Your task to perform on an android device: Open settings Image 0: 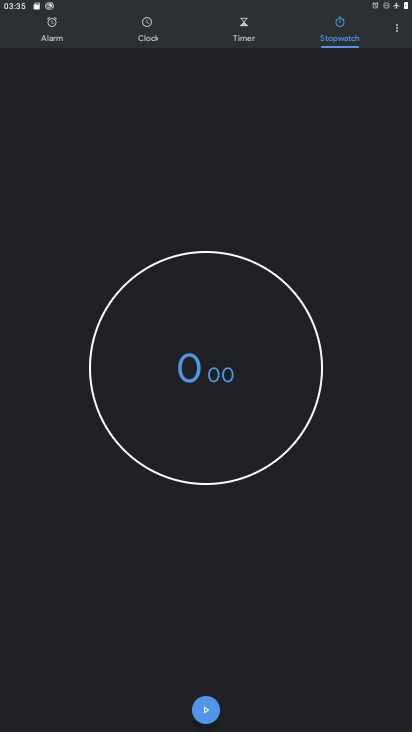
Step 0: press home button
Your task to perform on an android device: Open settings Image 1: 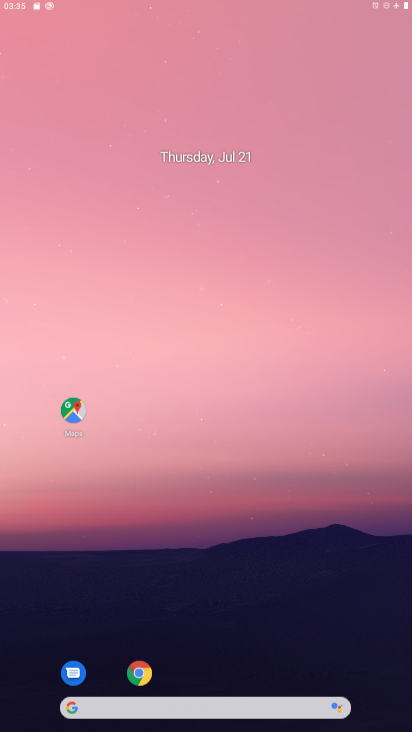
Step 1: drag from (257, 669) to (274, 264)
Your task to perform on an android device: Open settings Image 2: 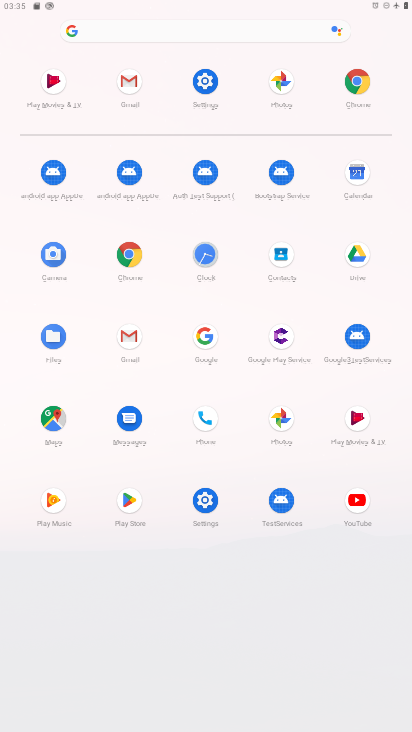
Step 2: click (217, 77)
Your task to perform on an android device: Open settings Image 3: 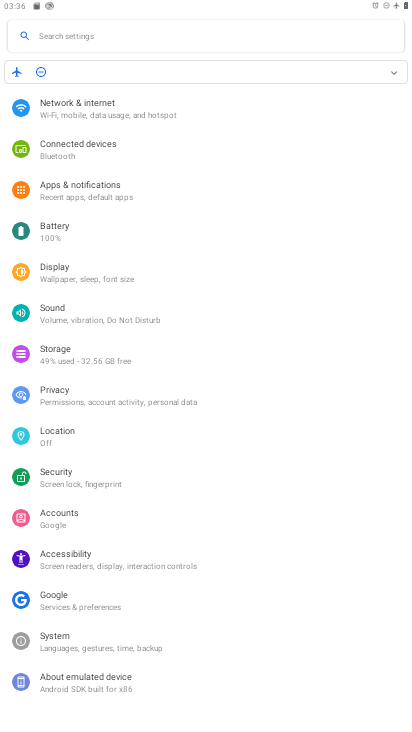
Step 3: task complete